Your task to perform on an android device: Turn on the flashlight Image 0: 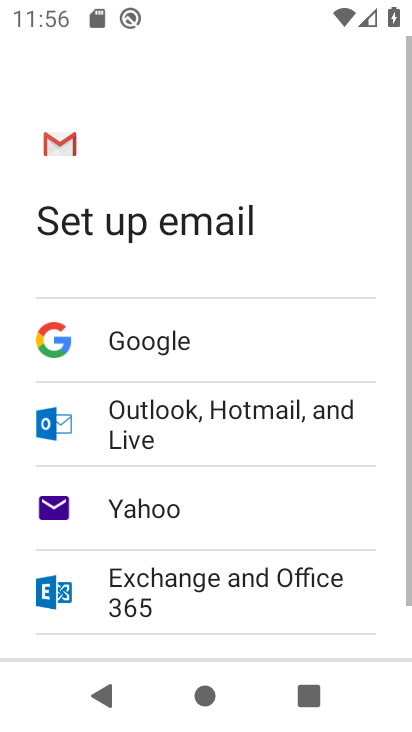
Step 0: press home button
Your task to perform on an android device: Turn on the flashlight Image 1: 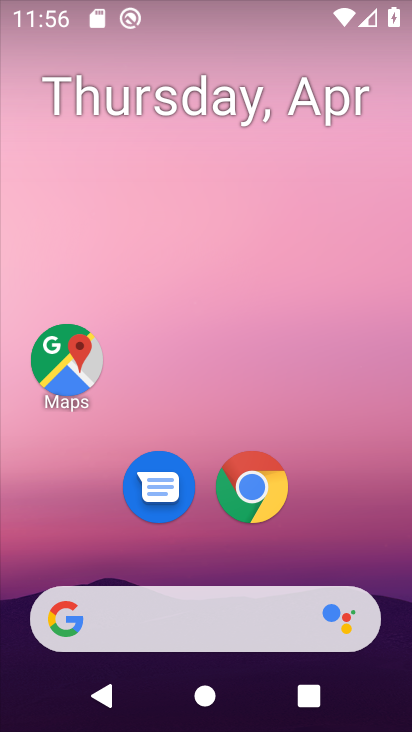
Step 1: drag from (229, 553) to (237, 219)
Your task to perform on an android device: Turn on the flashlight Image 2: 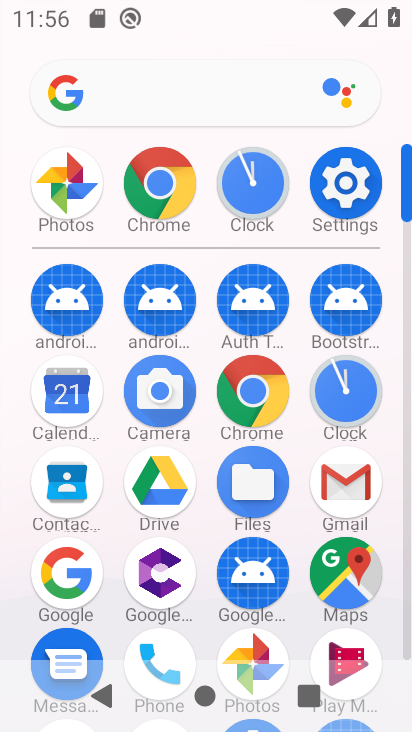
Step 2: click (324, 183)
Your task to perform on an android device: Turn on the flashlight Image 3: 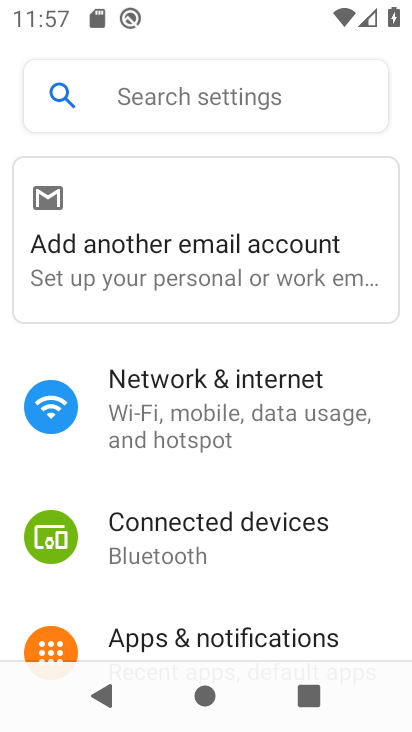
Step 3: task complete